Your task to perform on an android device: uninstall "Pluto TV - Live TV and Movies" Image 0: 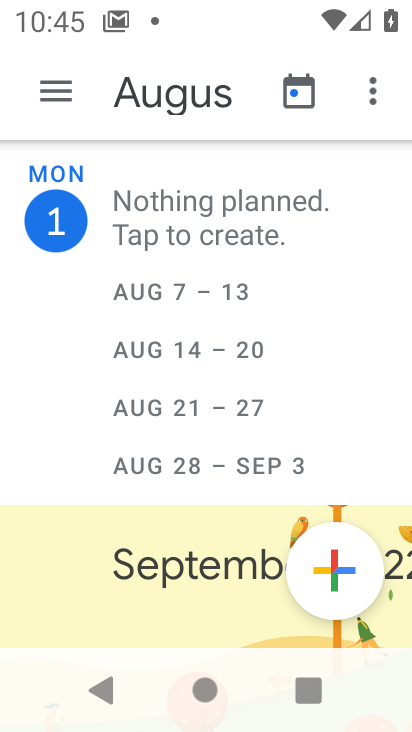
Step 0: press home button
Your task to perform on an android device: uninstall "Pluto TV - Live TV and Movies" Image 1: 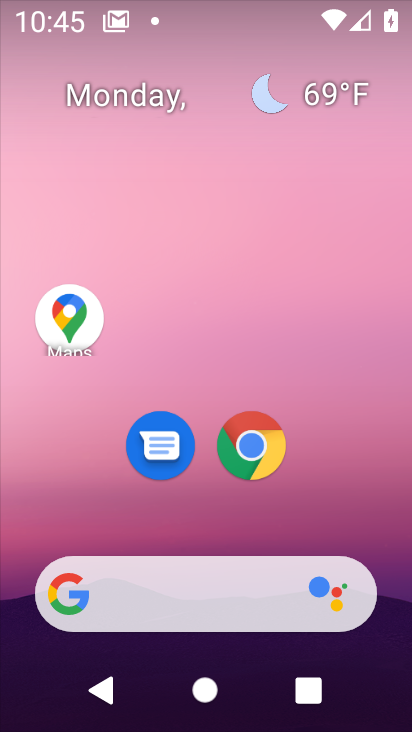
Step 1: drag from (250, 666) to (316, 139)
Your task to perform on an android device: uninstall "Pluto TV - Live TV and Movies" Image 2: 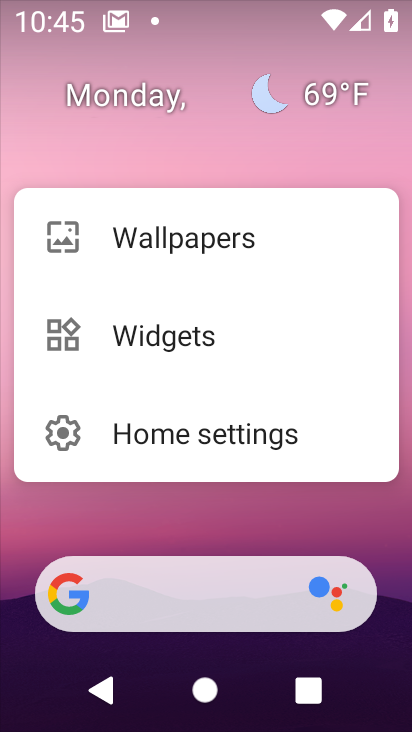
Step 2: click (321, 134)
Your task to perform on an android device: uninstall "Pluto TV - Live TV and Movies" Image 3: 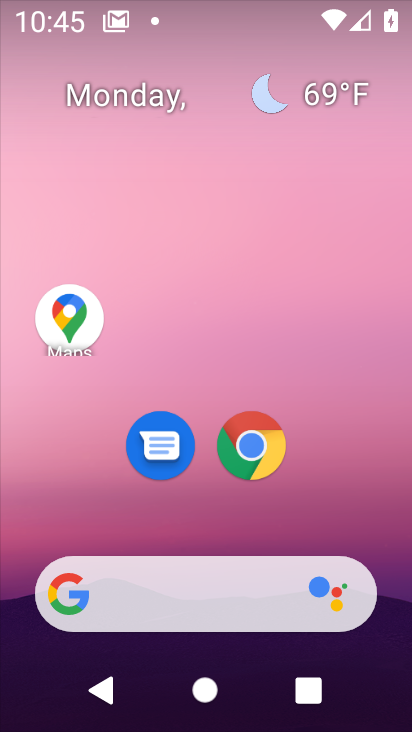
Step 3: drag from (239, 659) to (234, 145)
Your task to perform on an android device: uninstall "Pluto TV - Live TV and Movies" Image 4: 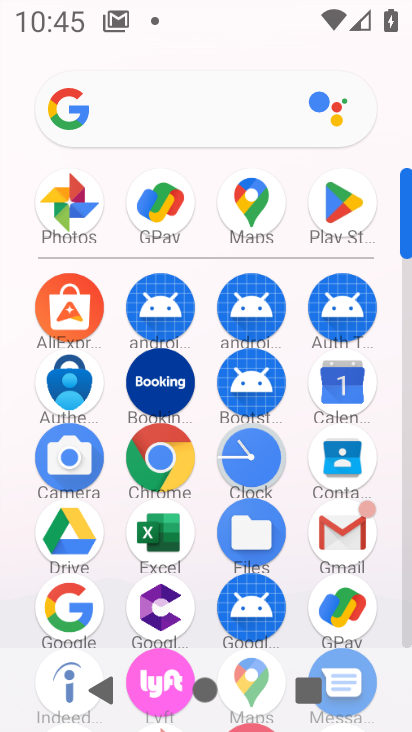
Step 4: click (336, 222)
Your task to perform on an android device: uninstall "Pluto TV - Live TV and Movies" Image 5: 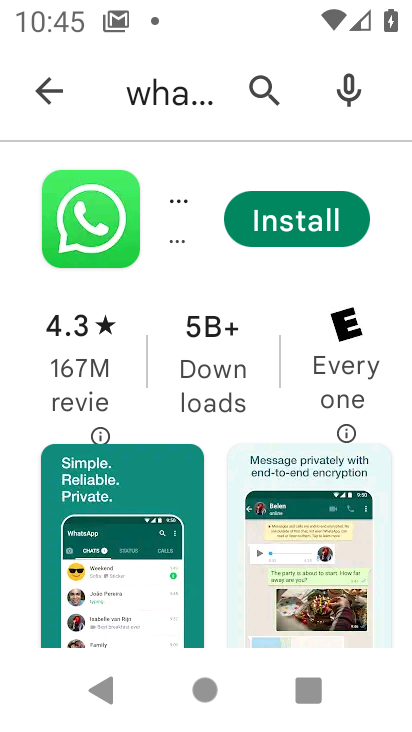
Step 5: click (38, 81)
Your task to perform on an android device: uninstall "Pluto TV - Live TV and Movies" Image 6: 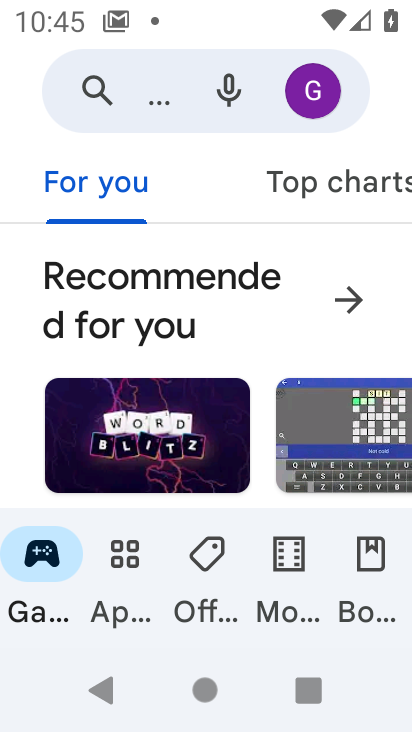
Step 6: click (118, 113)
Your task to perform on an android device: uninstall "Pluto TV - Live TV and Movies" Image 7: 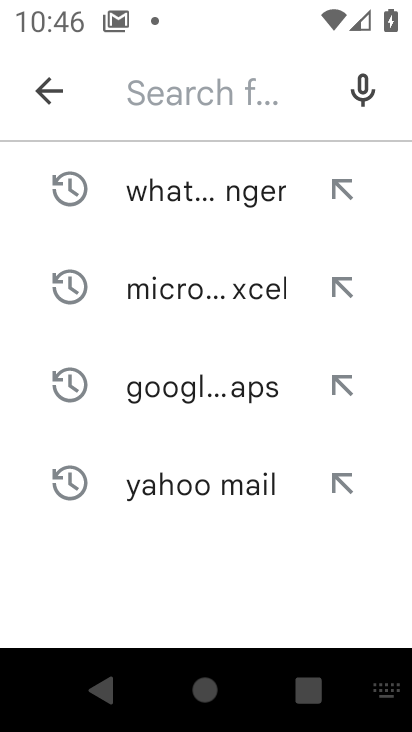
Step 7: type "Pluto TV - Live TV and Movies"
Your task to perform on an android device: uninstall "Pluto TV - Live TV and Movies" Image 8: 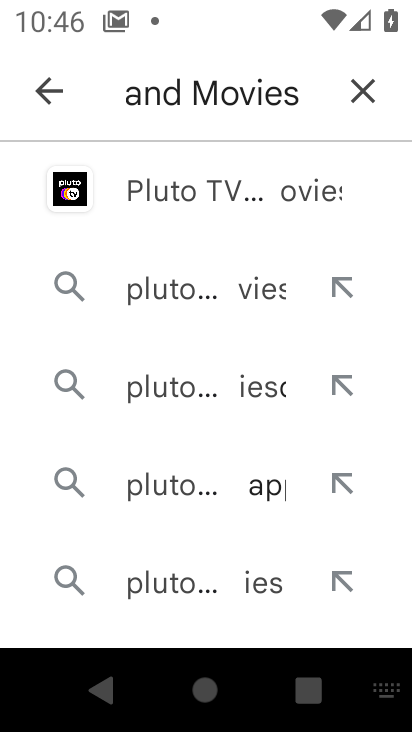
Step 8: click (260, 187)
Your task to perform on an android device: uninstall "Pluto TV - Live TV and Movies" Image 9: 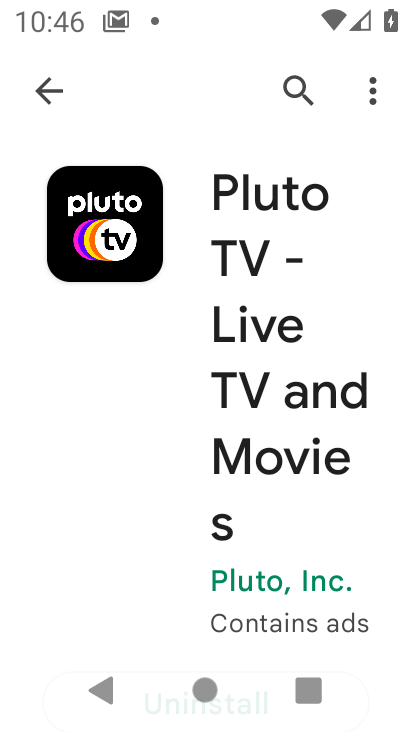
Step 9: drag from (197, 430) to (193, 42)
Your task to perform on an android device: uninstall "Pluto TV - Live TV and Movies" Image 10: 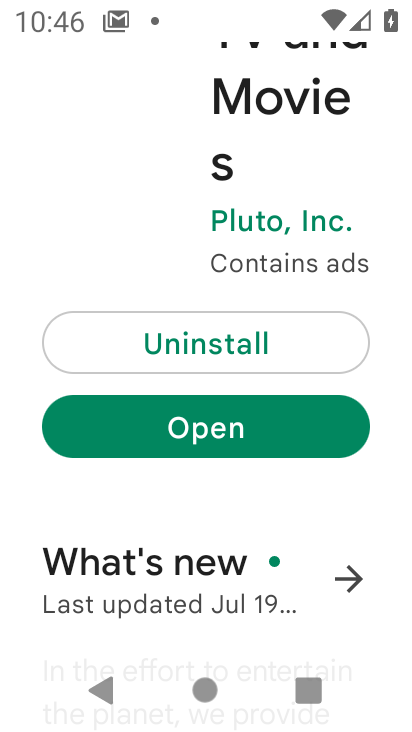
Step 10: click (185, 337)
Your task to perform on an android device: uninstall "Pluto TV - Live TV and Movies" Image 11: 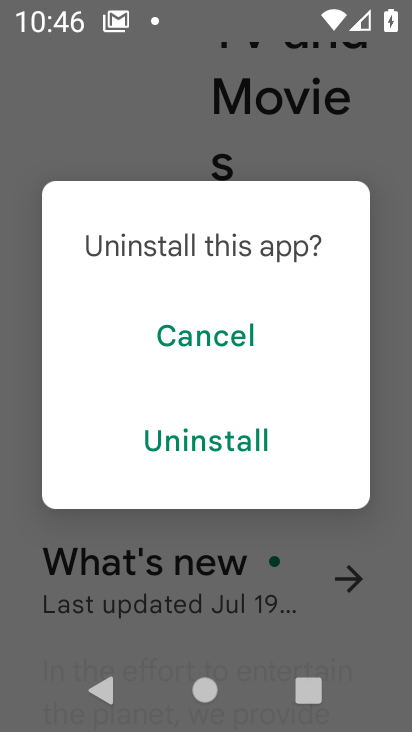
Step 11: click (218, 439)
Your task to perform on an android device: uninstall "Pluto TV - Live TV and Movies" Image 12: 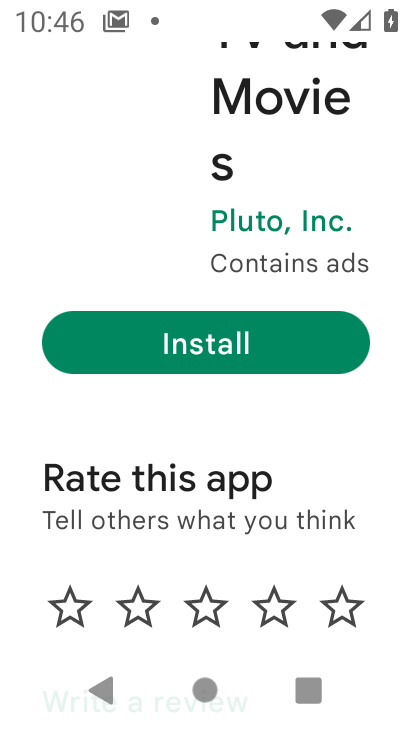
Step 12: task complete